Your task to perform on an android device: turn on wifi Image 0: 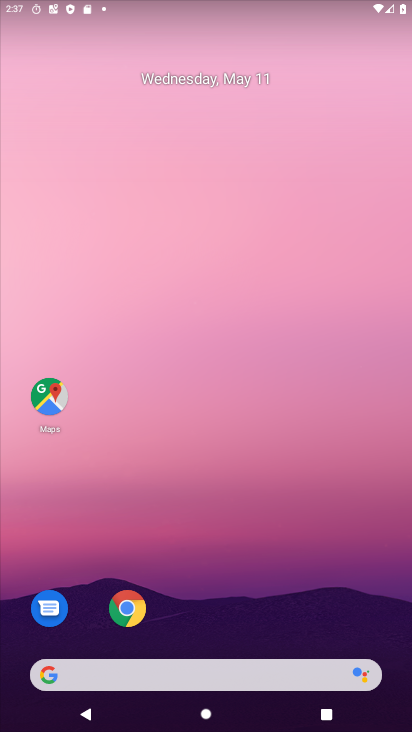
Step 0: drag from (169, 15) to (232, 705)
Your task to perform on an android device: turn on wifi Image 1: 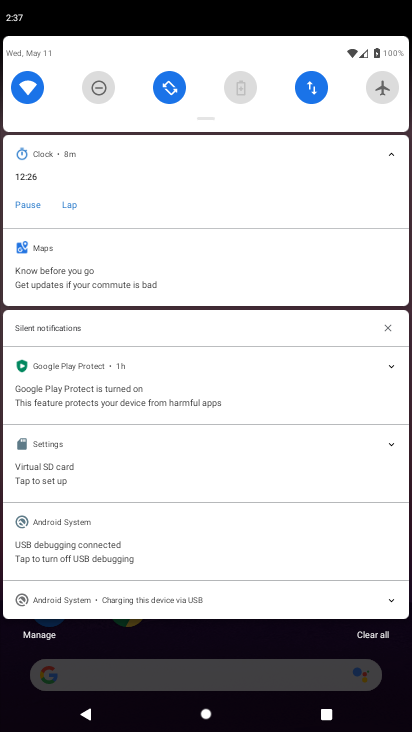
Step 1: task complete